Your task to perform on an android device: change notification settings in the gmail app Image 0: 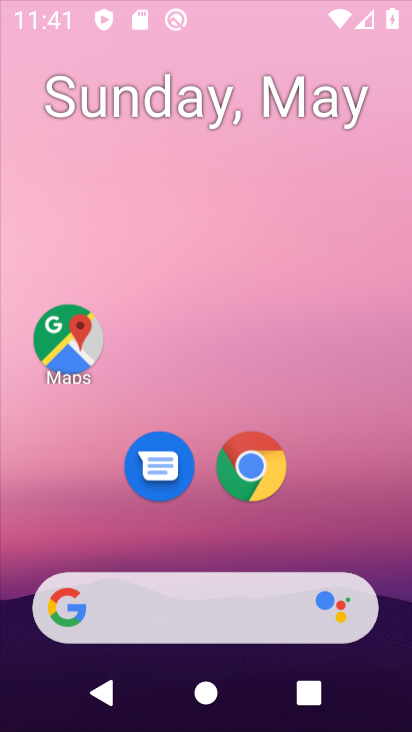
Step 0: press home button
Your task to perform on an android device: change notification settings in the gmail app Image 1: 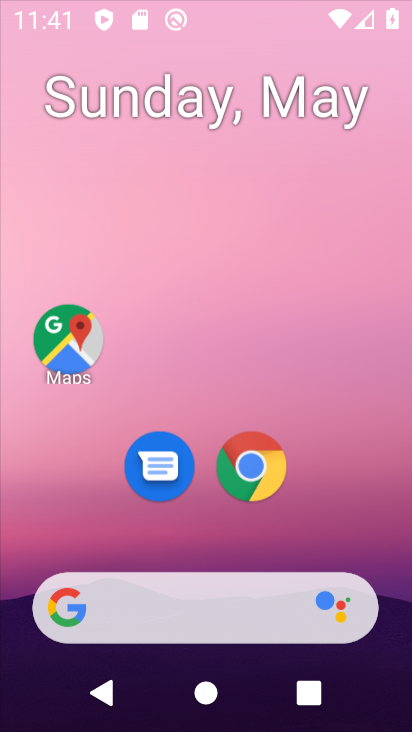
Step 1: click (346, 202)
Your task to perform on an android device: change notification settings in the gmail app Image 2: 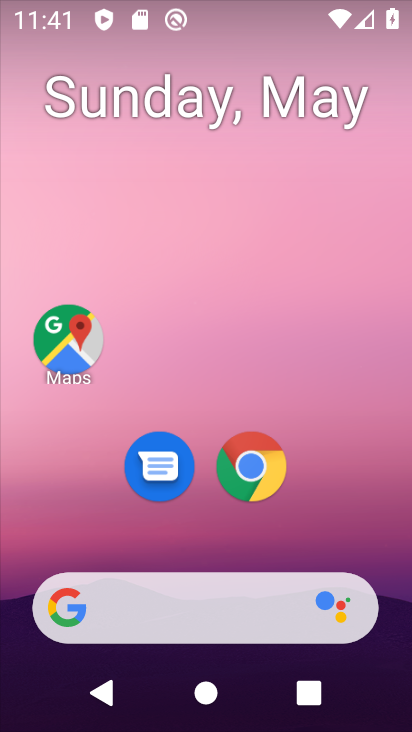
Step 2: drag from (404, 624) to (319, 67)
Your task to perform on an android device: change notification settings in the gmail app Image 3: 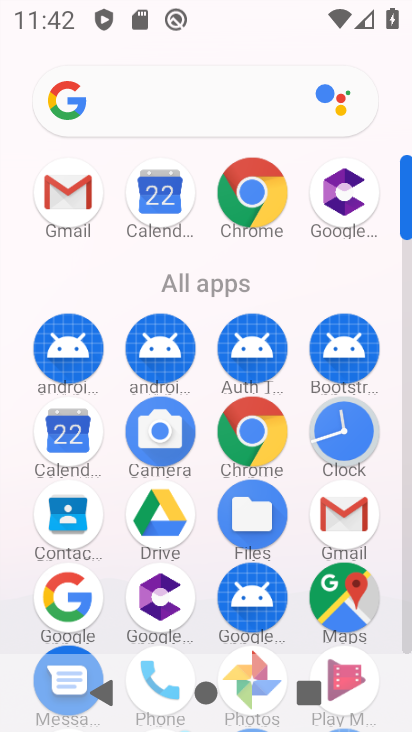
Step 3: click (346, 535)
Your task to perform on an android device: change notification settings in the gmail app Image 4: 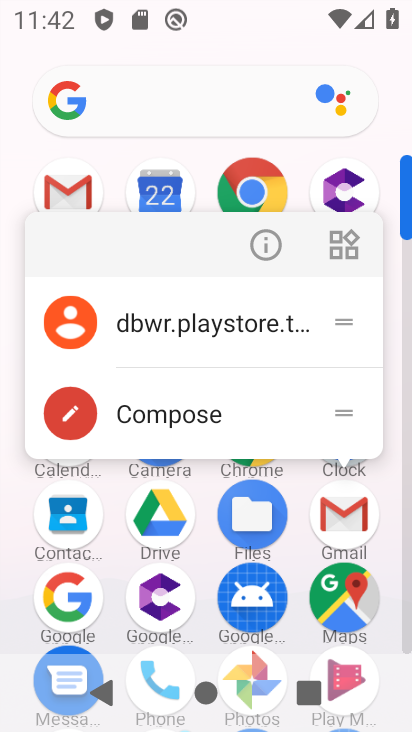
Step 4: click (266, 237)
Your task to perform on an android device: change notification settings in the gmail app Image 5: 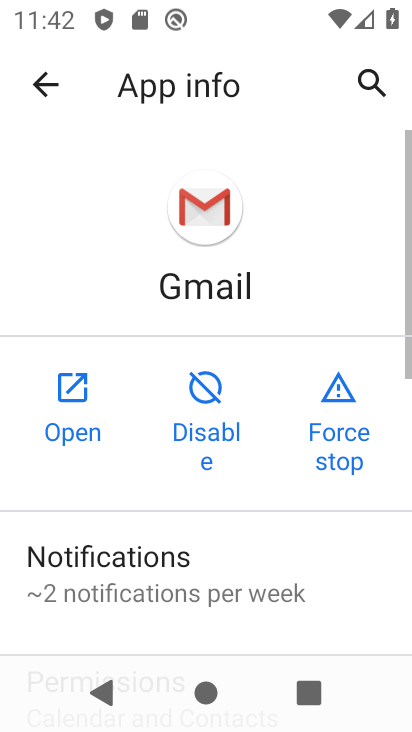
Step 5: click (134, 598)
Your task to perform on an android device: change notification settings in the gmail app Image 6: 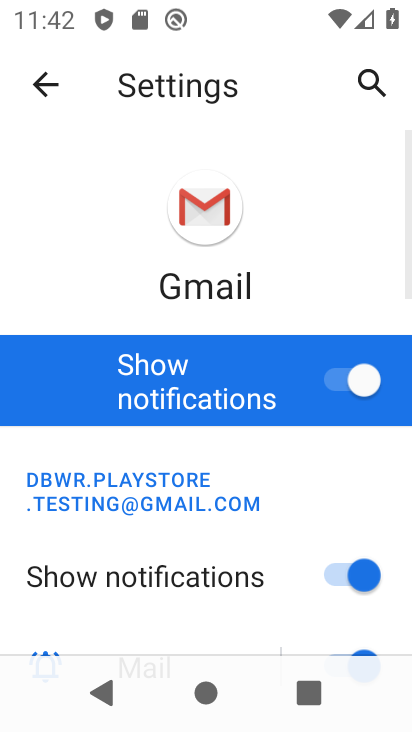
Step 6: click (373, 374)
Your task to perform on an android device: change notification settings in the gmail app Image 7: 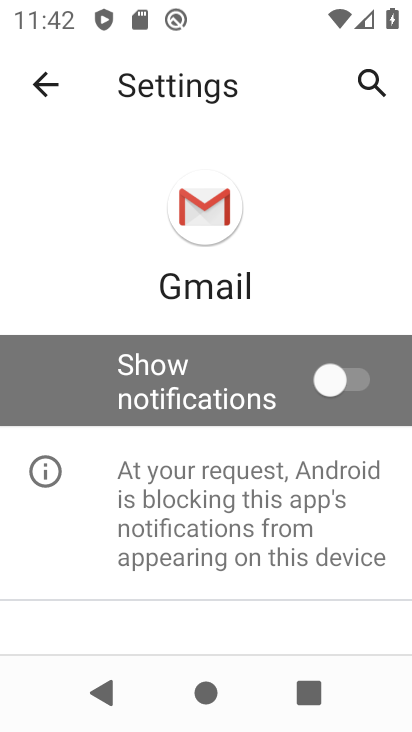
Step 7: task complete